Your task to perform on an android device: Open wifi settings Image 0: 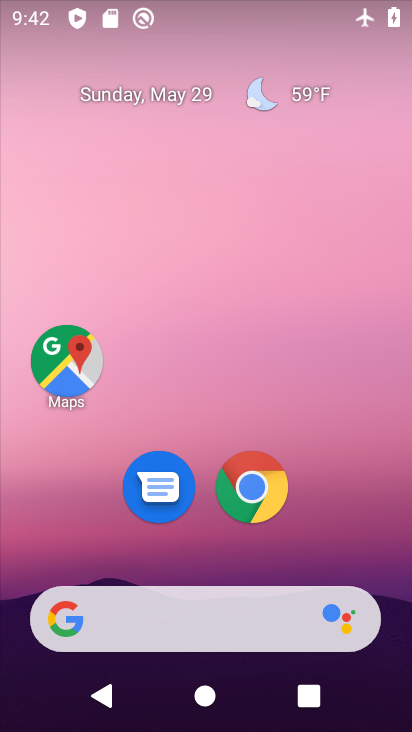
Step 0: drag from (405, 699) to (363, 339)
Your task to perform on an android device: Open wifi settings Image 1: 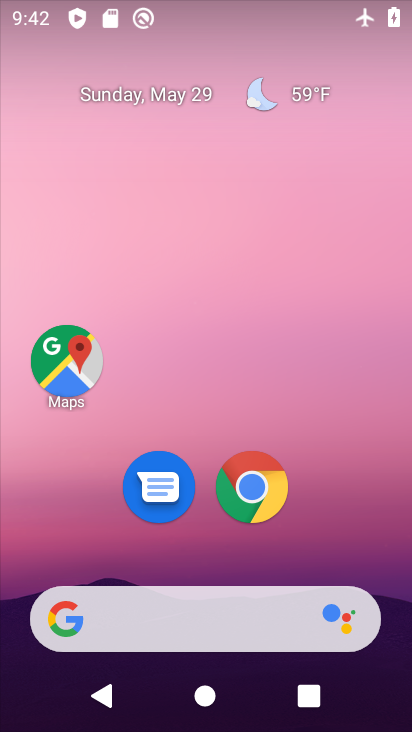
Step 1: drag from (388, 627) to (302, 195)
Your task to perform on an android device: Open wifi settings Image 2: 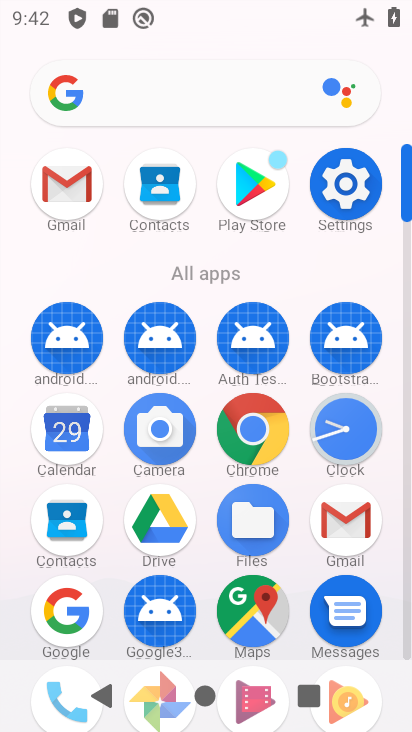
Step 2: click (340, 182)
Your task to perform on an android device: Open wifi settings Image 3: 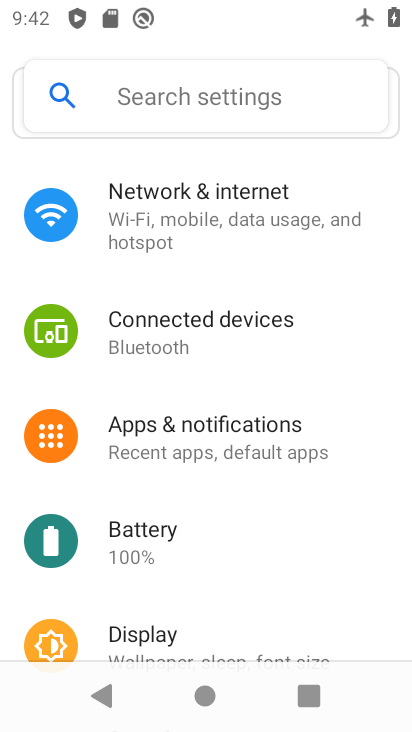
Step 3: click (252, 207)
Your task to perform on an android device: Open wifi settings Image 4: 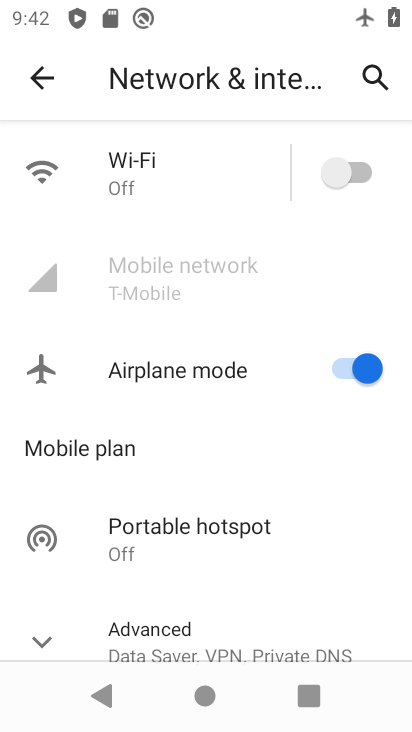
Step 4: click (166, 158)
Your task to perform on an android device: Open wifi settings Image 5: 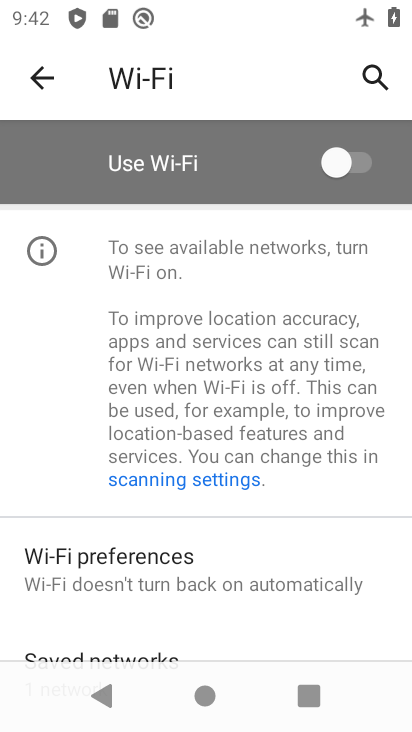
Step 5: task complete